Your task to perform on an android device: Empty the shopping cart on newegg.com. Image 0: 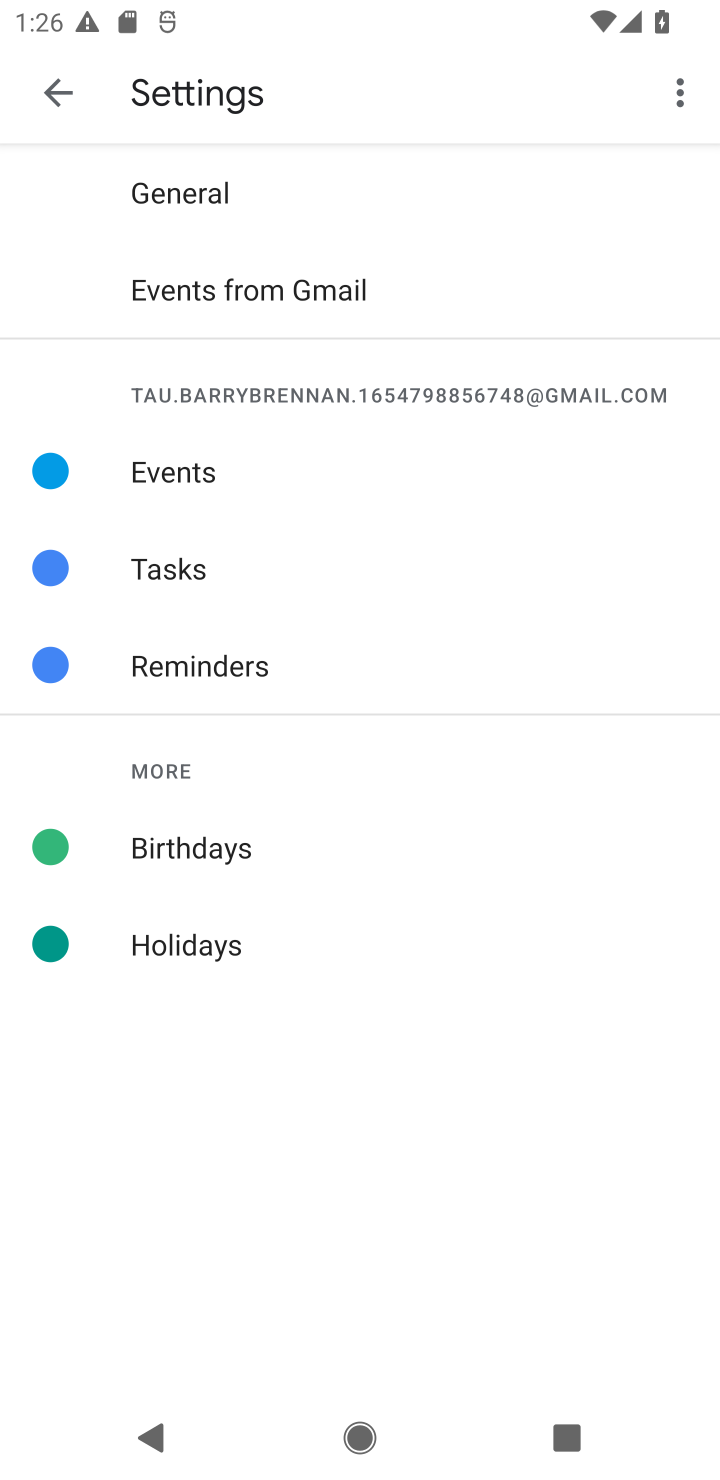
Step 0: press home button
Your task to perform on an android device: Empty the shopping cart on newegg.com. Image 1: 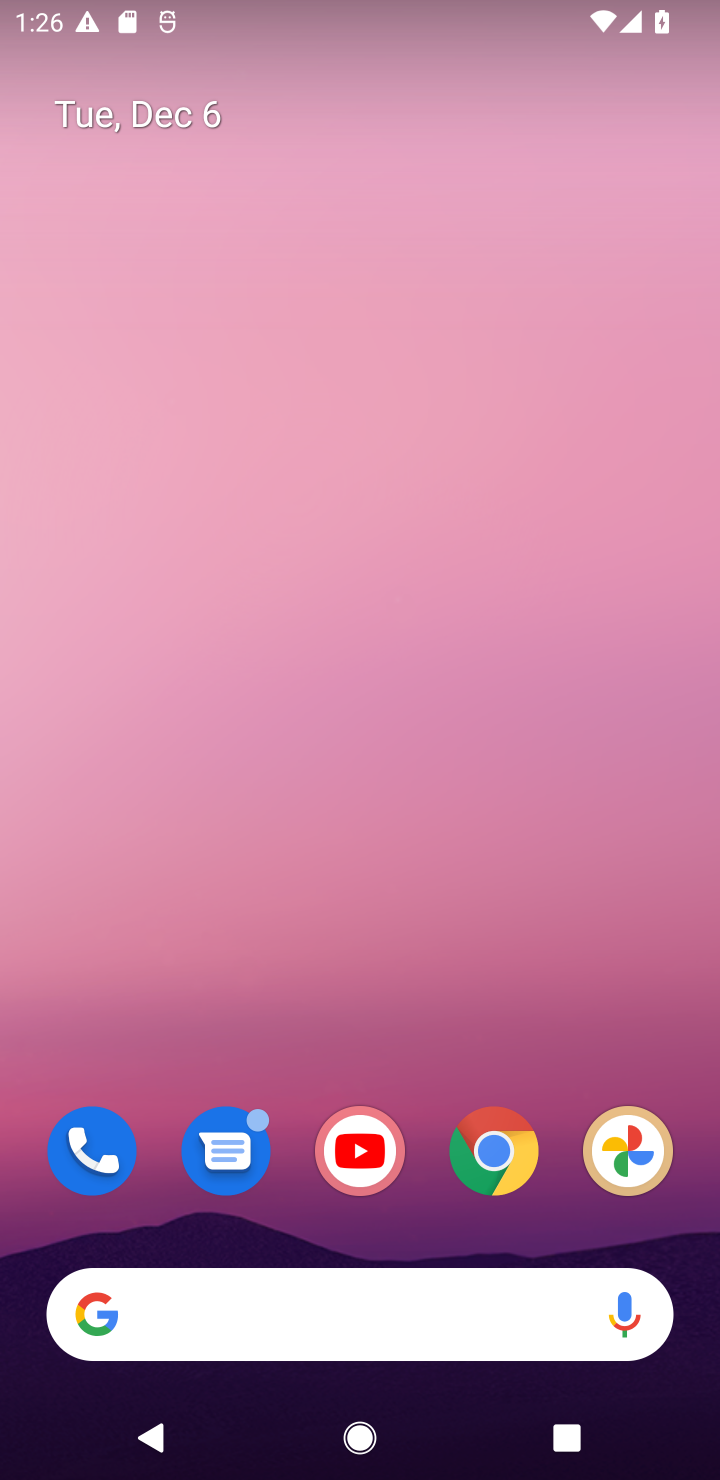
Step 1: click (509, 1151)
Your task to perform on an android device: Empty the shopping cart on newegg.com. Image 2: 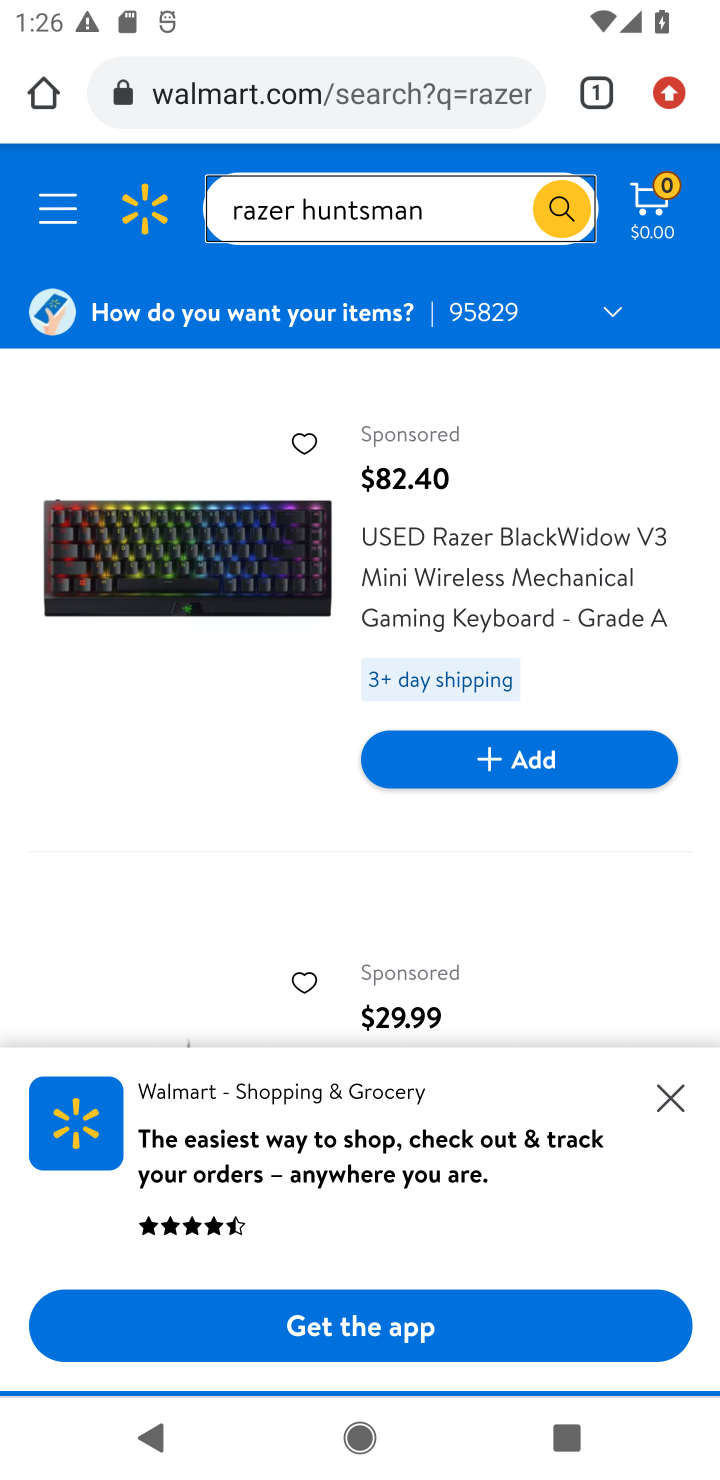
Step 2: click (343, 95)
Your task to perform on an android device: Empty the shopping cart on newegg.com. Image 3: 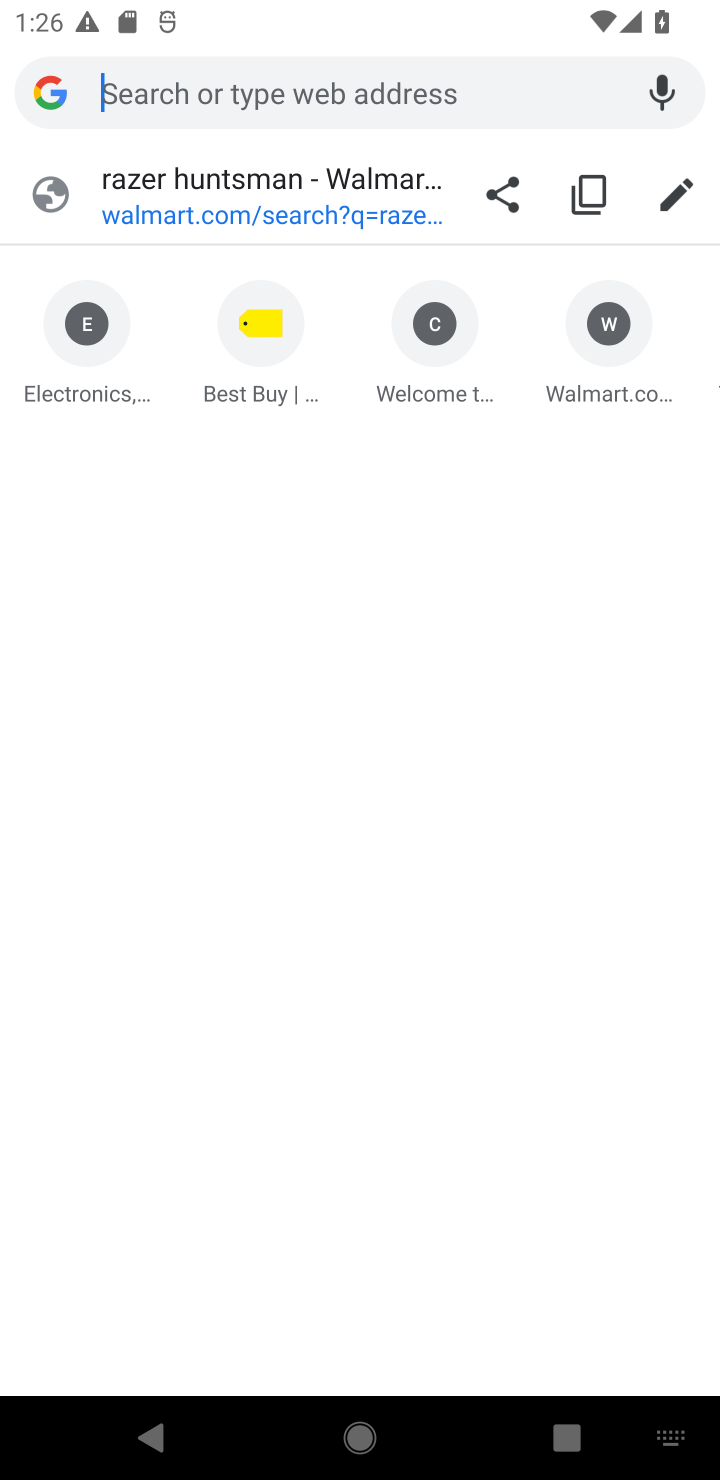
Step 3: type "newegg.com"
Your task to perform on an android device: Empty the shopping cart on newegg.com. Image 4: 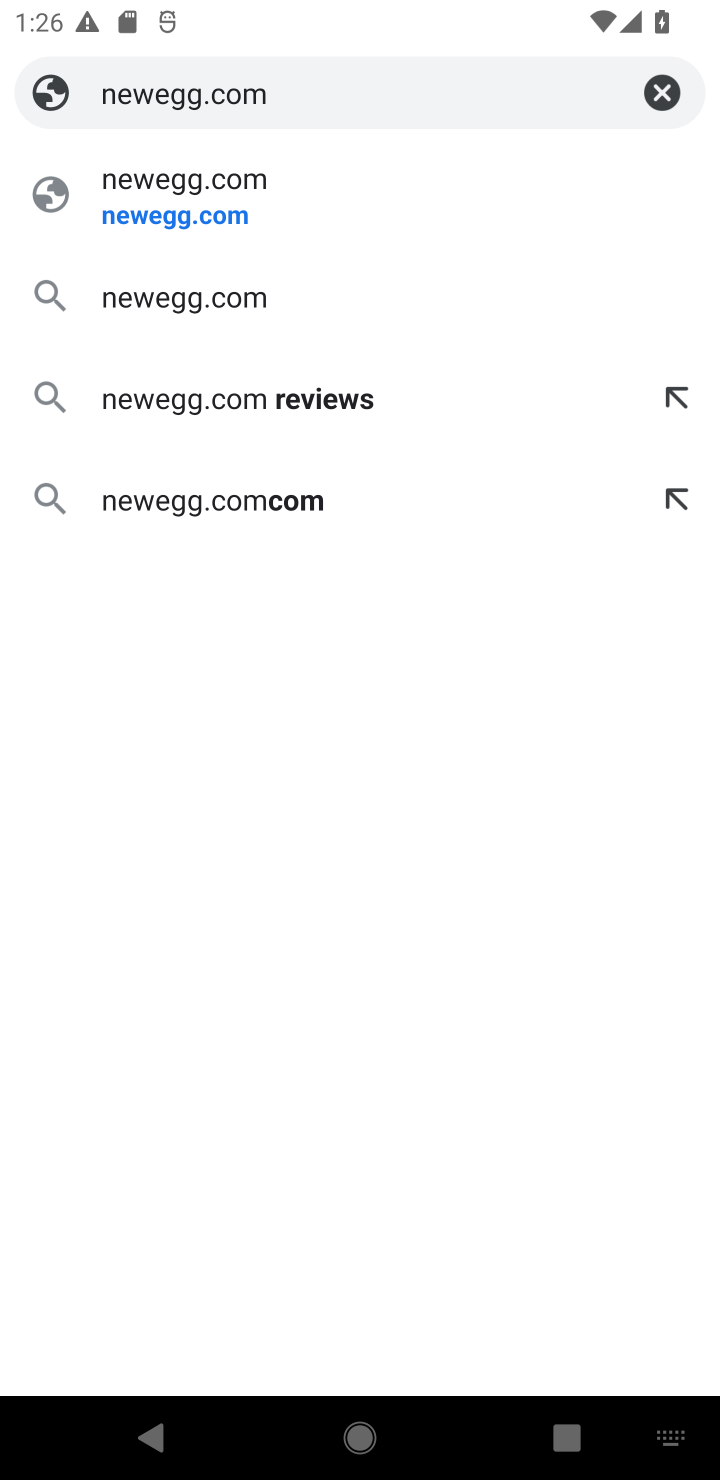
Step 4: click (102, 213)
Your task to perform on an android device: Empty the shopping cart on newegg.com. Image 5: 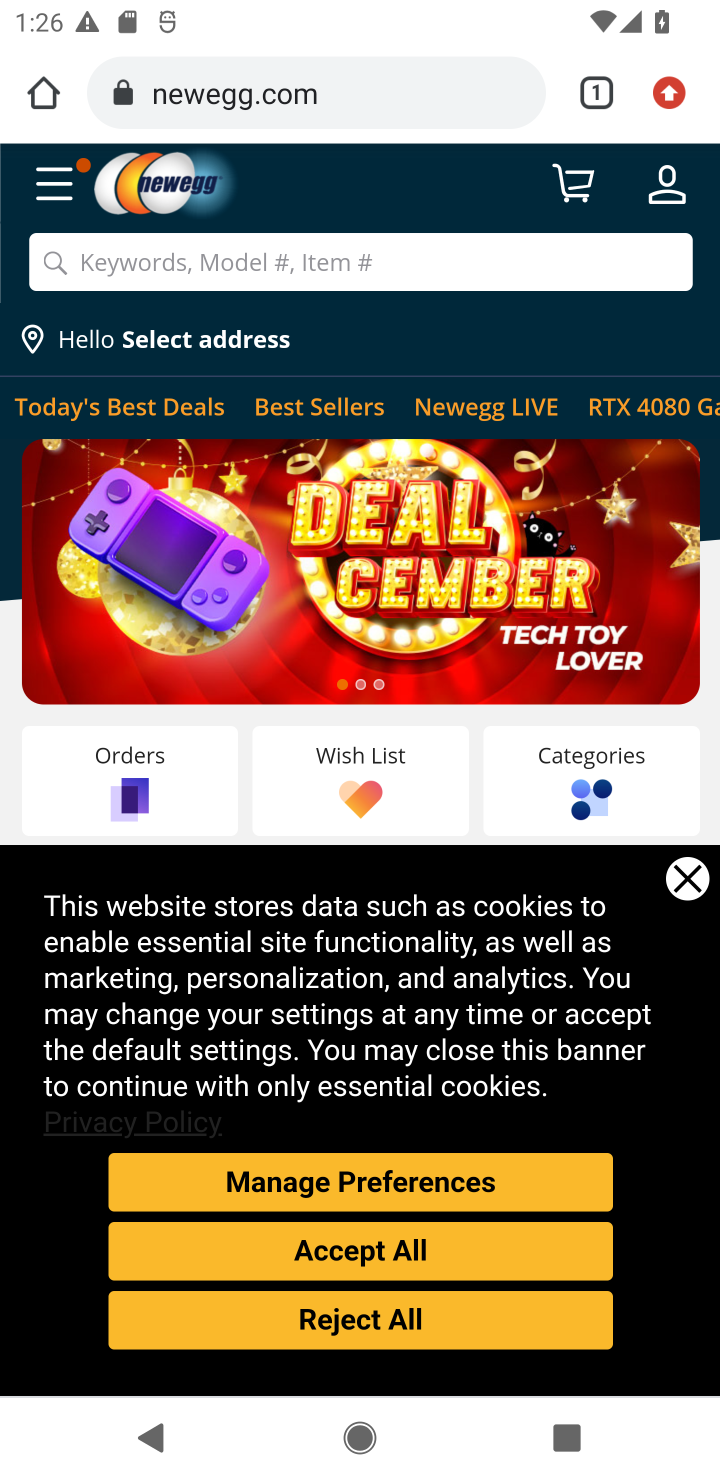
Step 5: click (574, 179)
Your task to perform on an android device: Empty the shopping cart on newegg.com. Image 6: 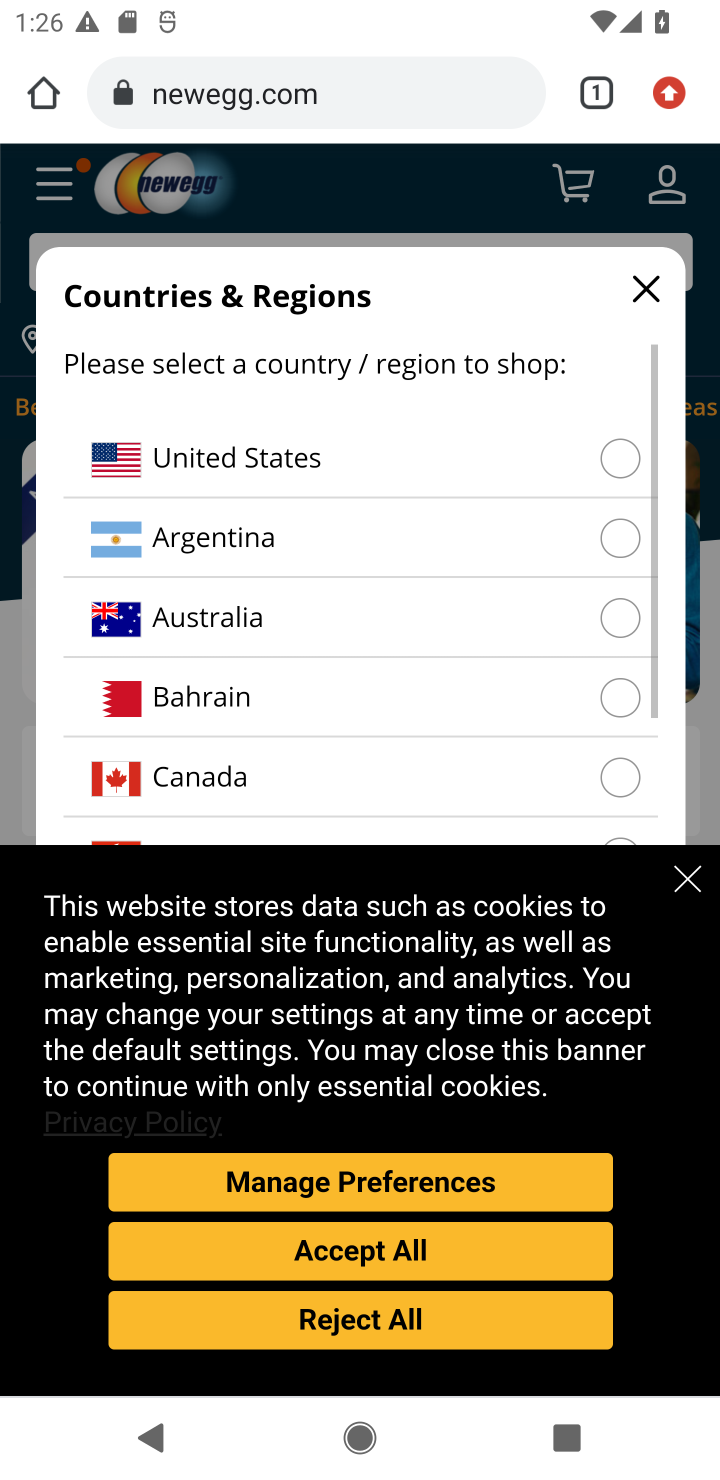
Step 6: click (692, 873)
Your task to perform on an android device: Empty the shopping cart on newegg.com. Image 7: 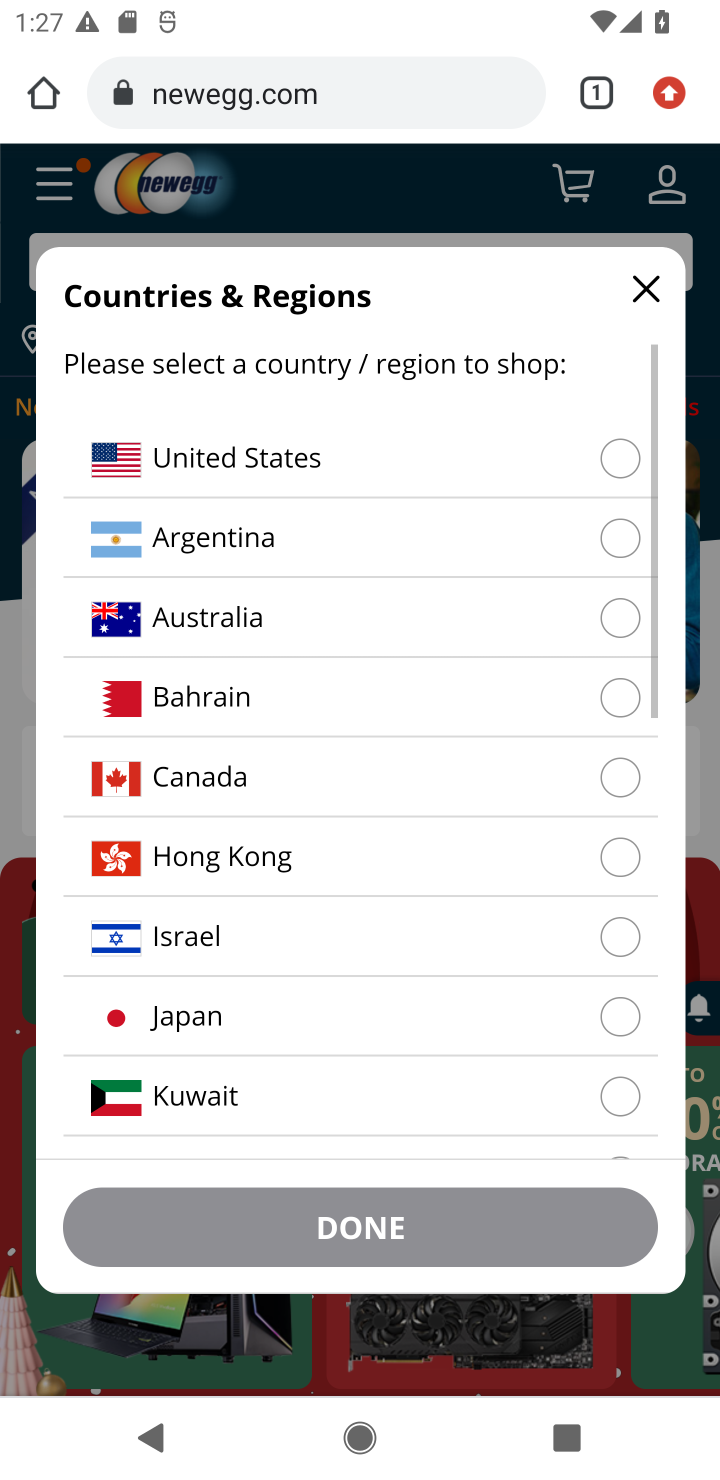
Step 7: click (140, 440)
Your task to perform on an android device: Empty the shopping cart on newegg.com. Image 8: 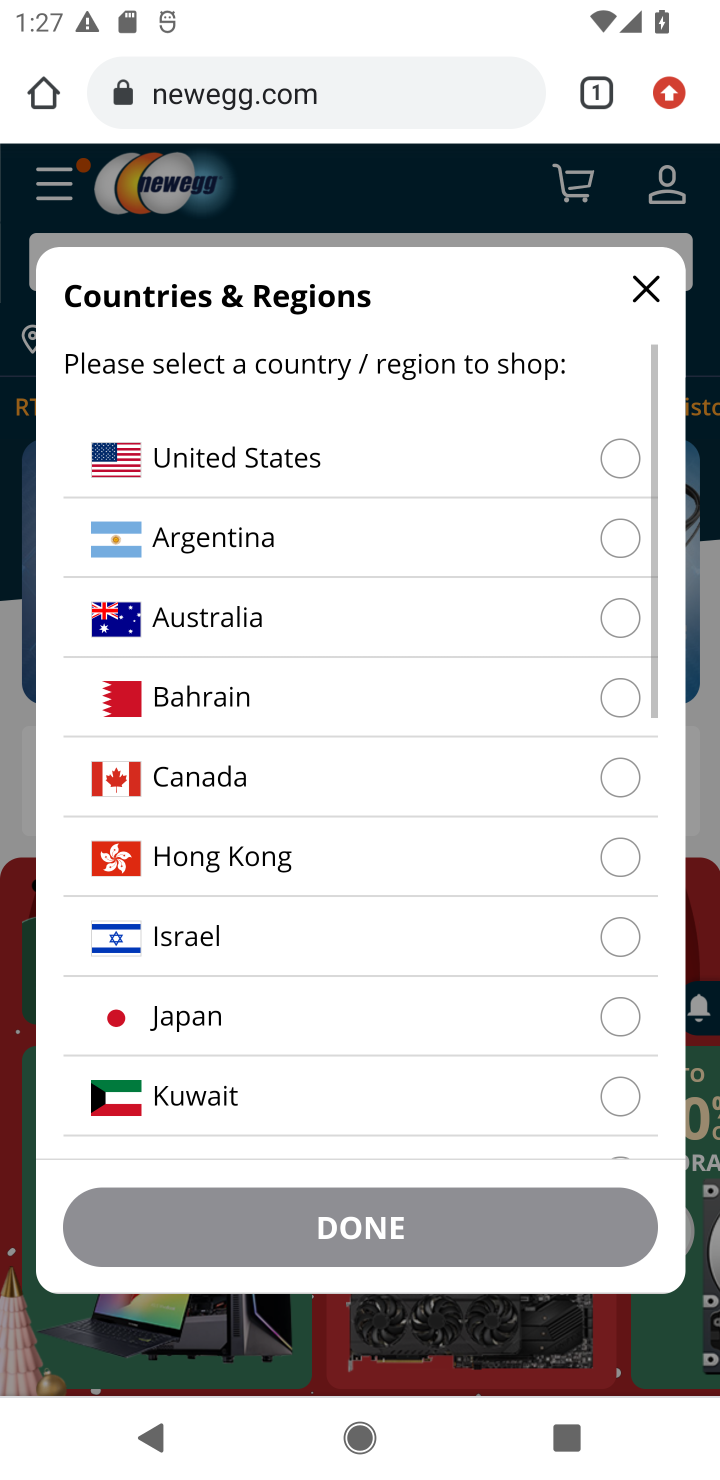
Step 8: click (258, 458)
Your task to perform on an android device: Empty the shopping cart on newegg.com. Image 9: 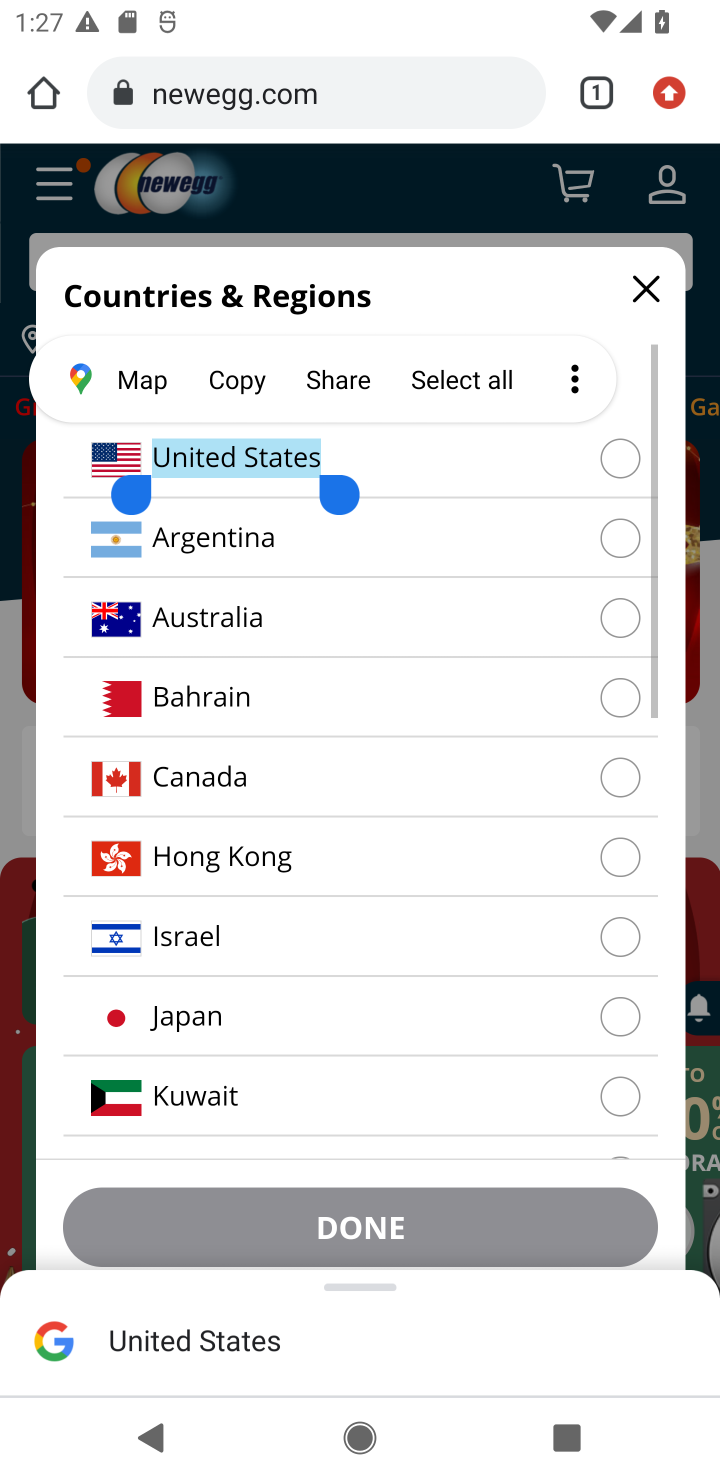
Step 9: click (626, 456)
Your task to perform on an android device: Empty the shopping cart on newegg.com. Image 10: 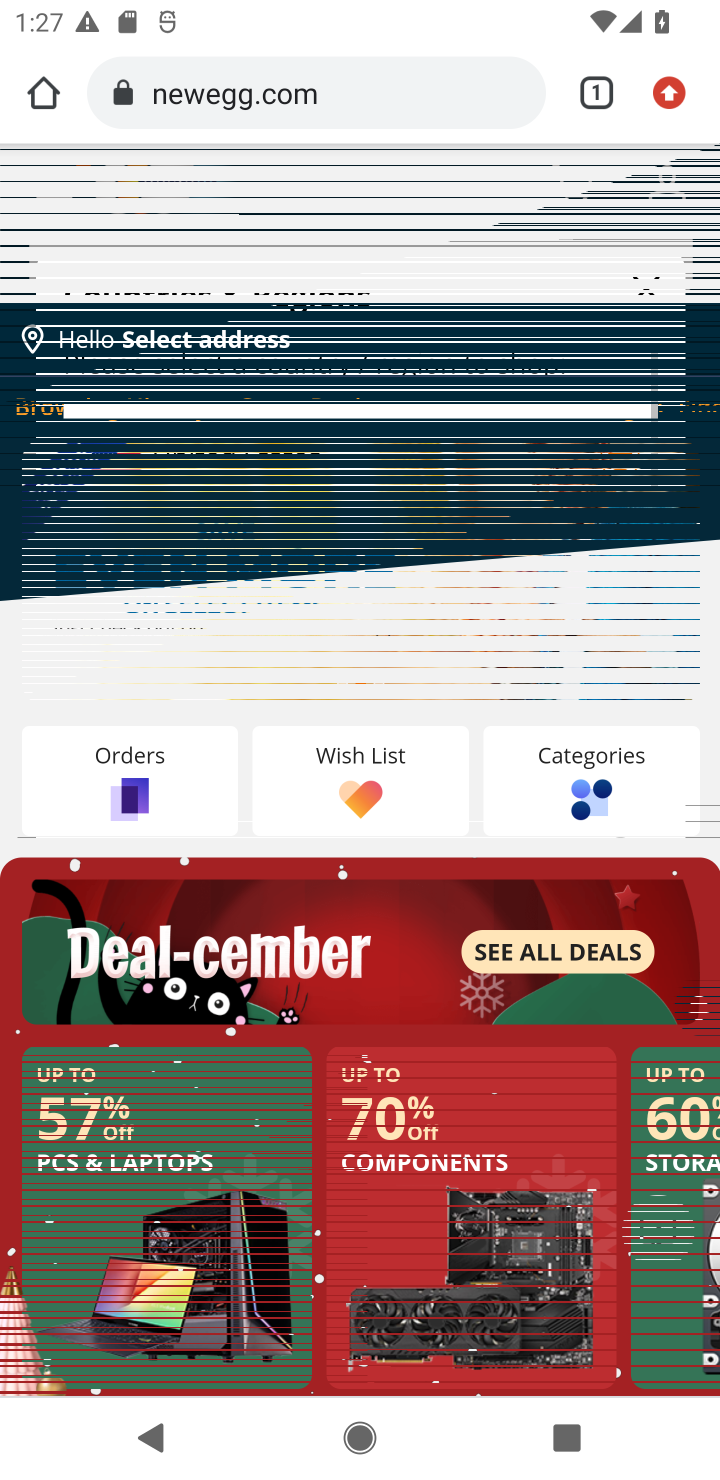
Step 10: click (300, 1211)
Your task to perform on an android device: Empty the shopping cart on newegg.com. Image 11: 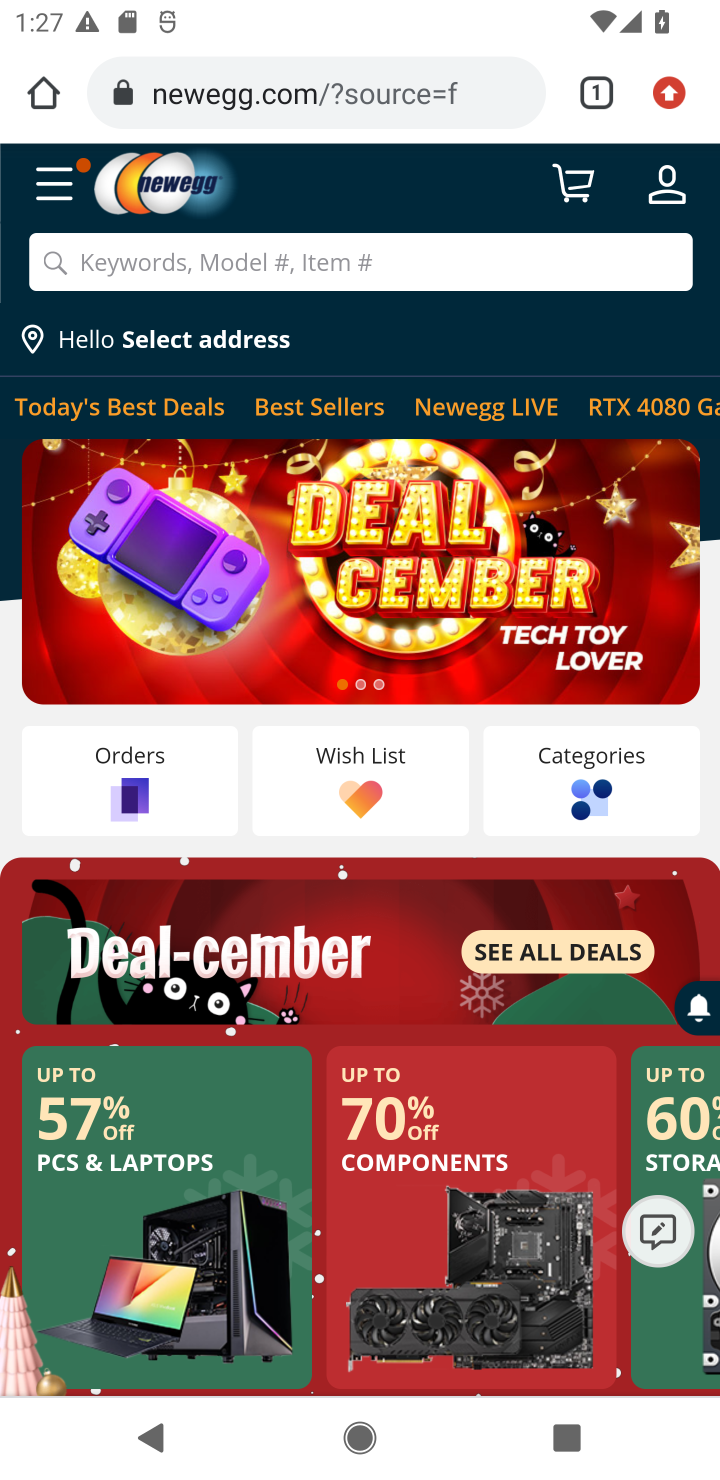
Step 11: click (579, 183)
Your task to perform on an android device: Empty the shopping cart on newegg.com. Image 12: 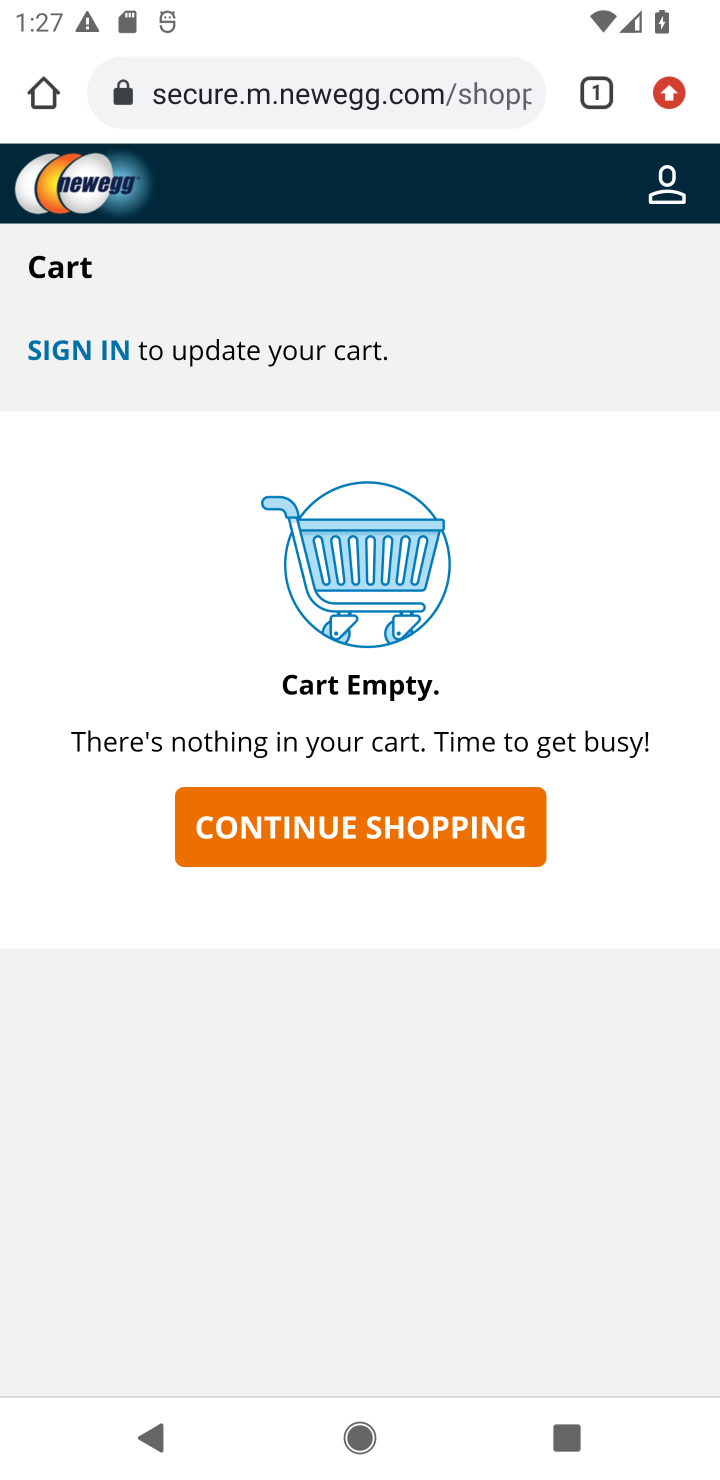
Step 12: task complete